Your task to perform on an android device: turn on the 12-hour format for clock Image 0: 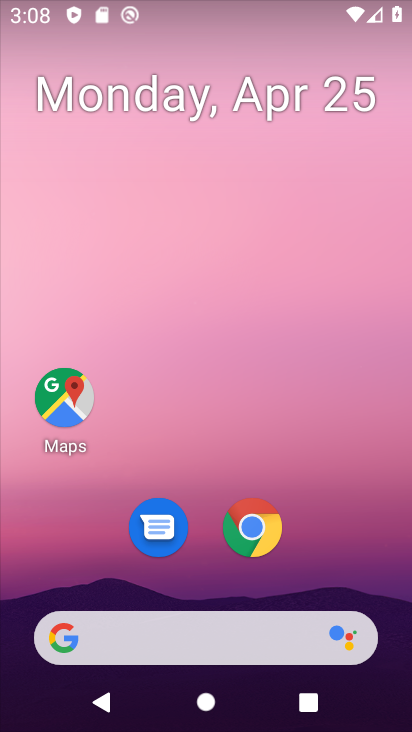
Step 0: press home button
Your task to perform on an android device: turn on the 12-hour format for clock Image 1: 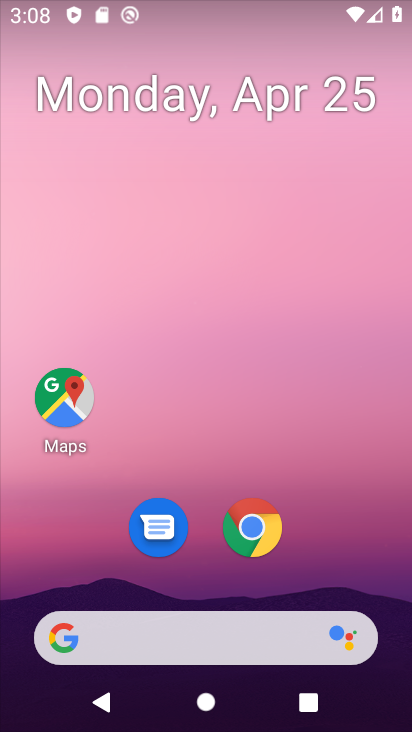
Step 1: drag from (185, 638) to (302, 68)
Your task to perform on an android device: turn on the 12-hour format for clock Image 2: 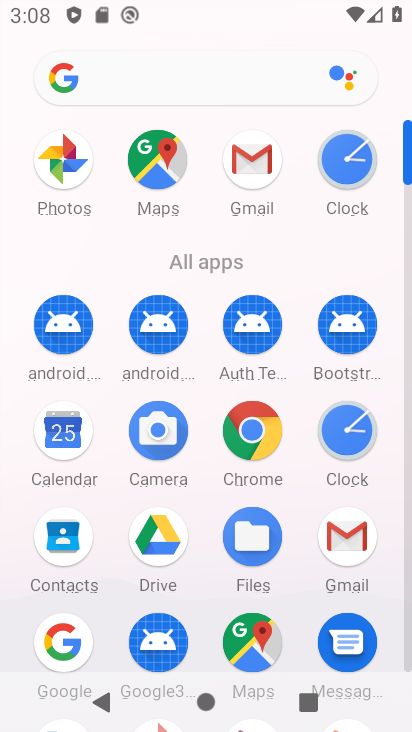
Step 2: click (343, 167)
Your task to perform on an android device: turn on the 12-hour format for clock Image 3: 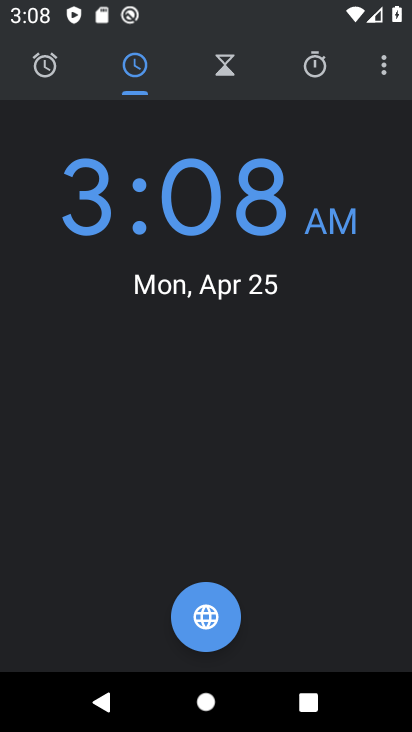
Step 3: click (386, 71)
Your task to perform on an android device: turn on the 12-hour format for clock Image 4: 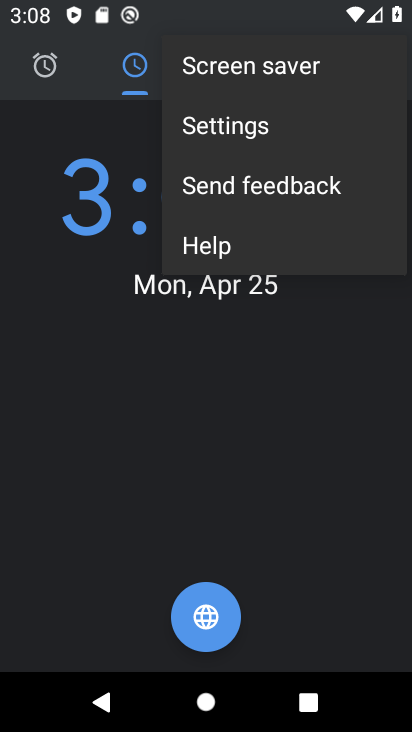
Step 4: click (248, 128)
Your task to perform on an android device: turn on the 12-hour format for clock Image 5: 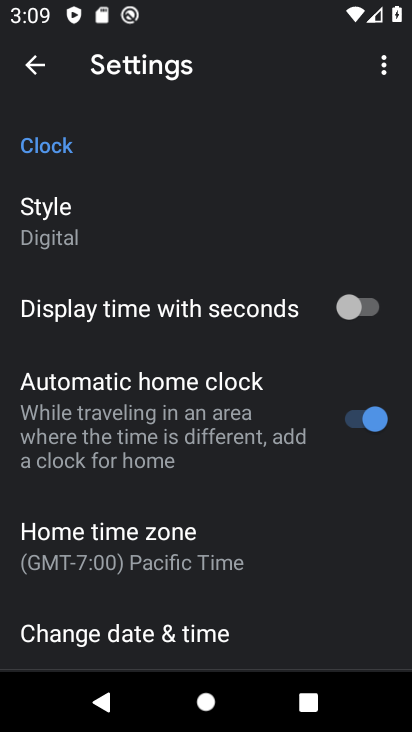
Step 5: drag from (168, 592) to (314, 164)
Your task to perform on an android device: turn on the 12-hour format for clock Image 6: 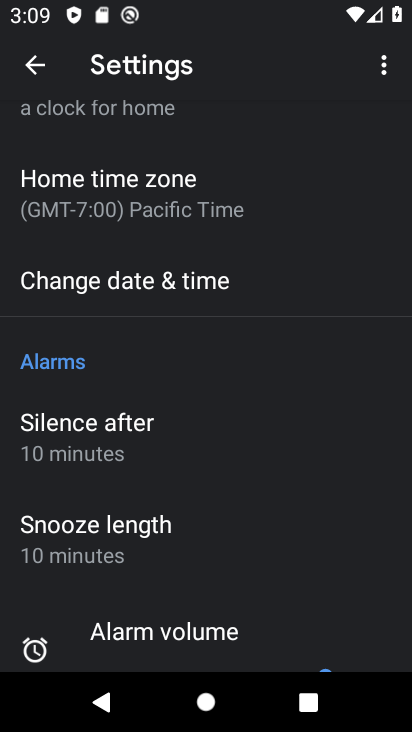
Step 6: click (136, 281)
Your task to perform on an android device: turn on the 12-hour format for clock Image 7: 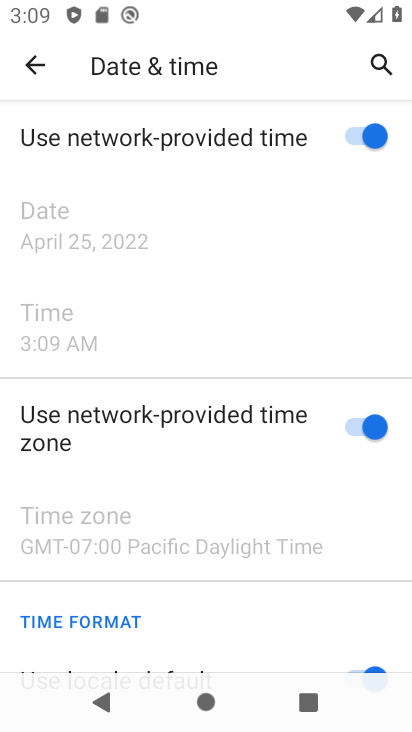
Step 7: task complete